Your task to perform on an android device: Open CNN.com Image 0: 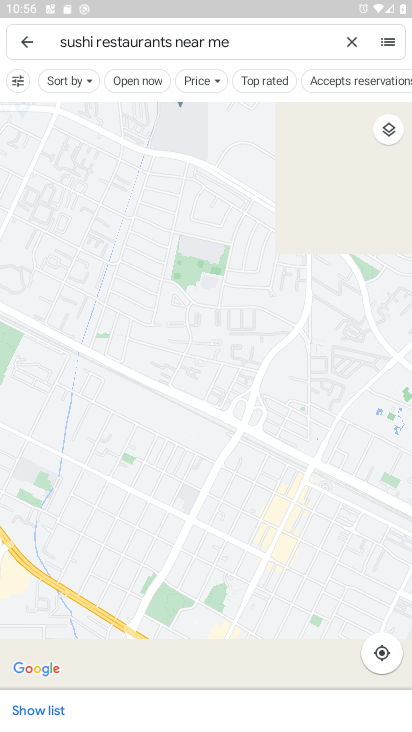
Step 0: click (353, 48)
Your task to perform on an android device: Open CNN.com Image 1: 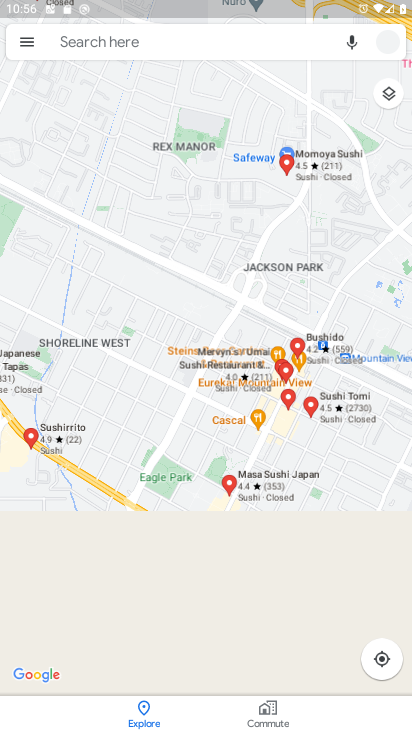
Step 1: press home button
Your task to perform on an android device: Open CNN.com Image 2: 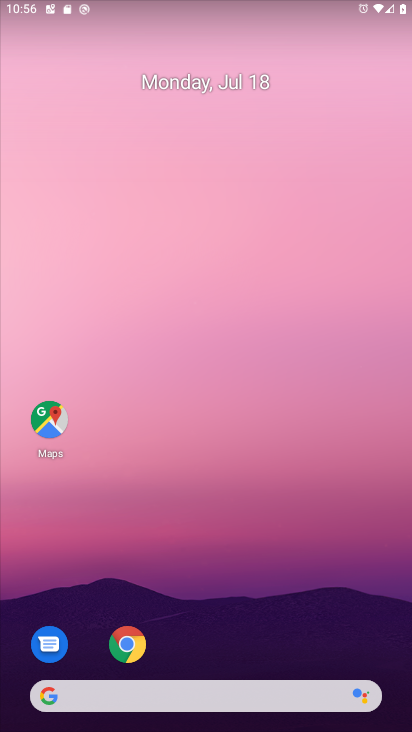
Step 2: click (189, 698)
Your task to perform on an android device: Open CNN.com Image 3: 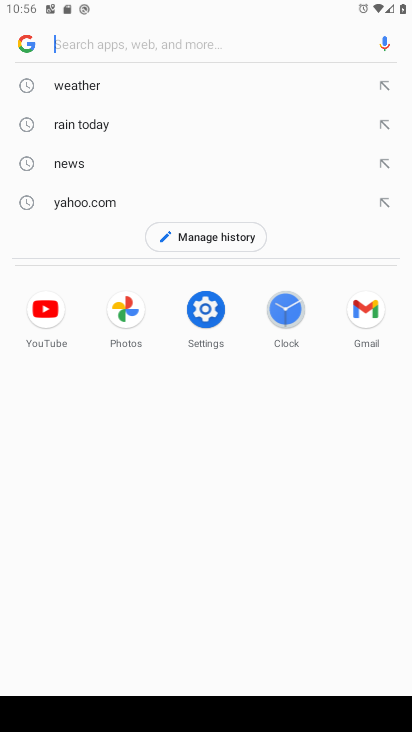
Step 3: type "cnn.com"
Your task to perform on an android device: Open CNN.com Image 4: 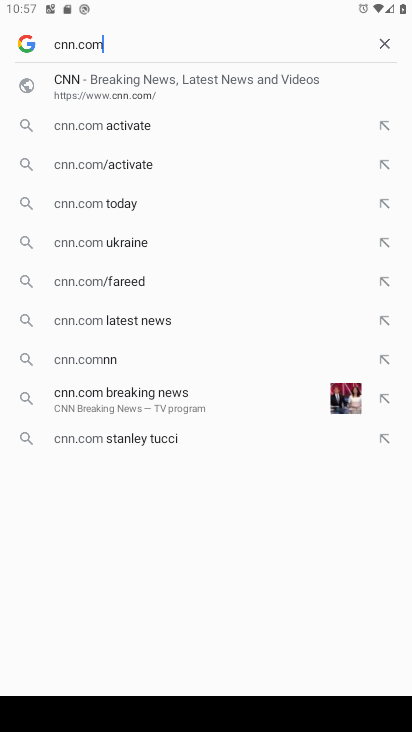
Step 4: task complete